Your task to perform on an android device: turn off javascript in the chrome app Image 0: 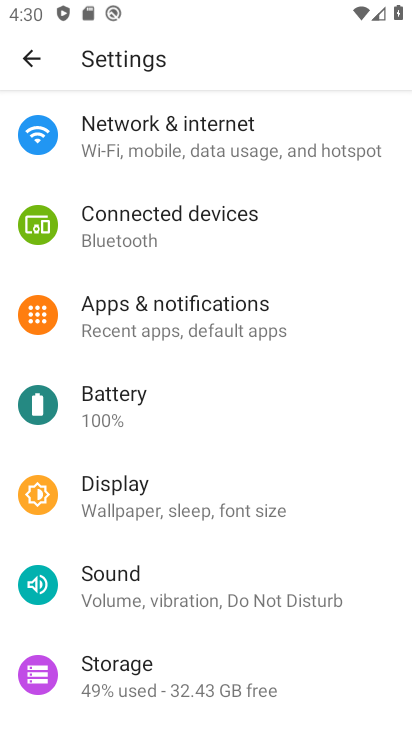
Step 0: press back button
Your task to perform on an android device: turn off javascript in the chrome app Image 1: 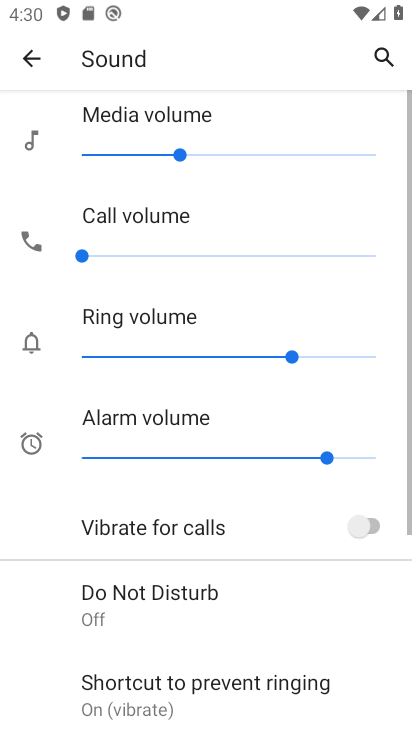
Step 1: press back button
Your task to perform on an android device: turn off javascript in the chrome app Image 2: 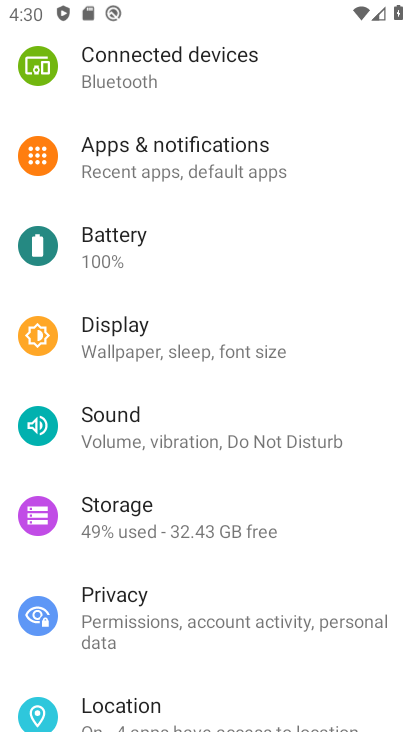
Step 2: press back button
Your task to perform on an android device: turn off javascript in the chrome app Image 3: 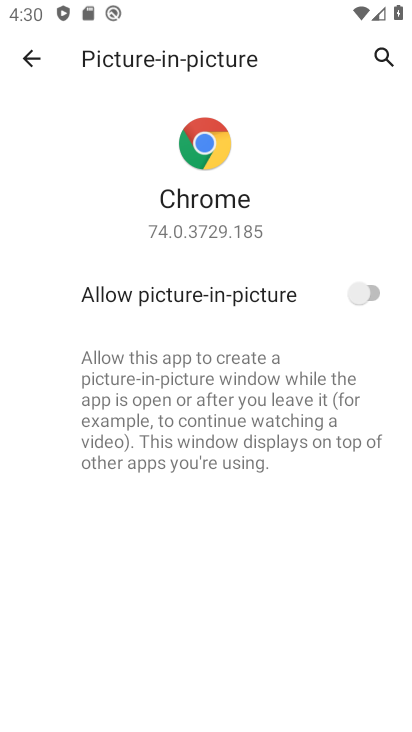
Step 3: press back button
Your task to perform on an android device: turn off javascript in the chrome app Image 4: 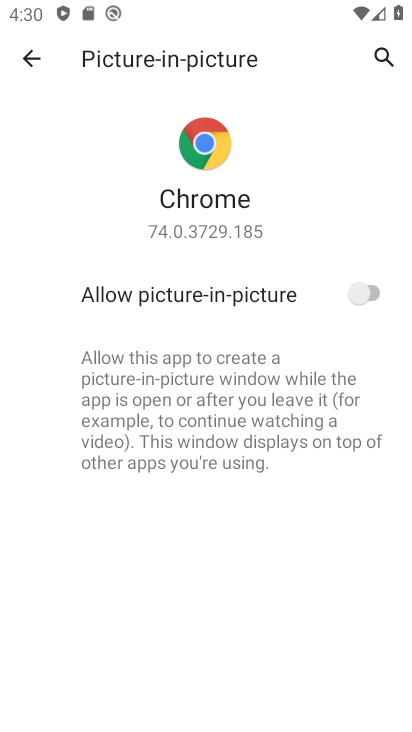
Step 4: press back button
Your task to perform on an android device: turn off javascript in the chrome app Image 5: 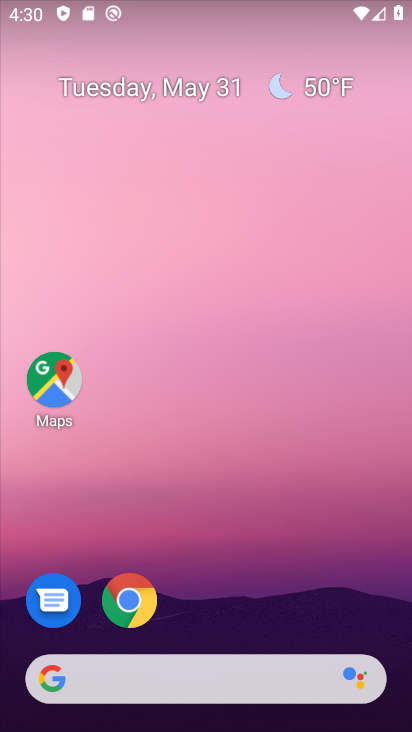
Step 5: click (137, 599)
Your task to perform on an android device: turn off javascript in the chrome app Image 6: 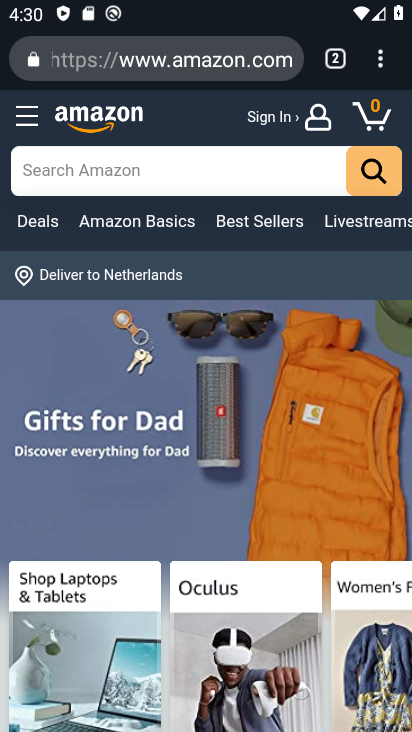
Step 6: click (385, 56)
Your task to perform on an android device: turn off javascript in the chrome app Image 7: 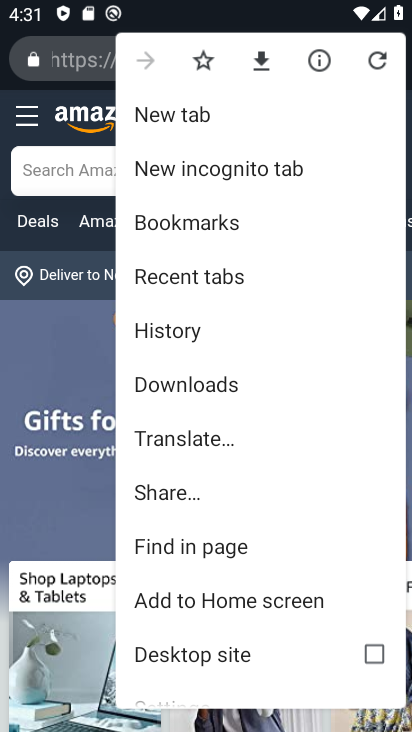
Step 7: drag from (210, 465) to (249, 373)
Your task to perform on an android device: turn off javascript in the chrome app Image 8: 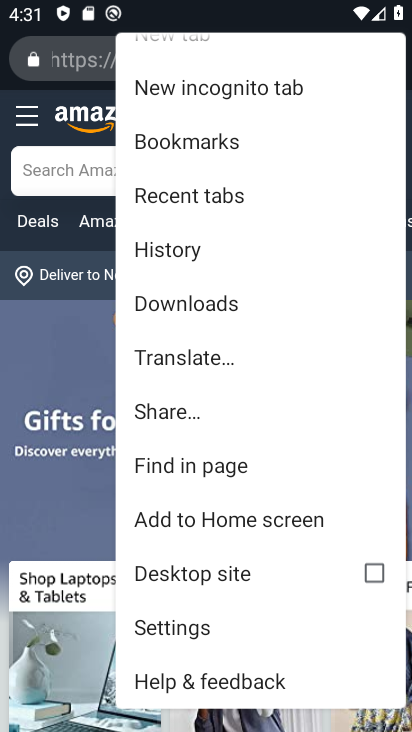
Step 8: click (180, 626)
Your task to perform on an android device: turn off javascript in the chrome app Image 9: 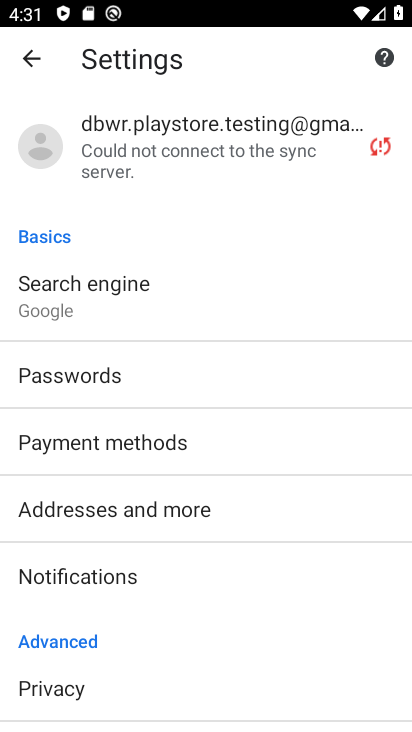
Step 9: drag from (96, 557) to (149, 388)
Your task to perform on an android device: turn off javascript in the chrome app Image 10: 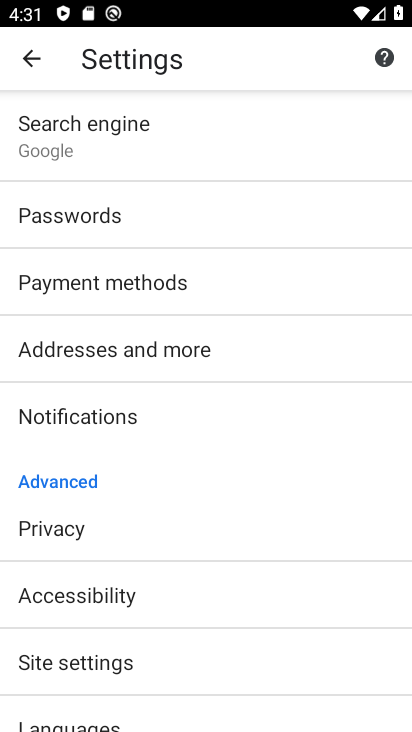
Step 10: drag from (131, 556) to (146, 434)
Your task to perform on an android device: turn off javascript in the chrome app Image 11: 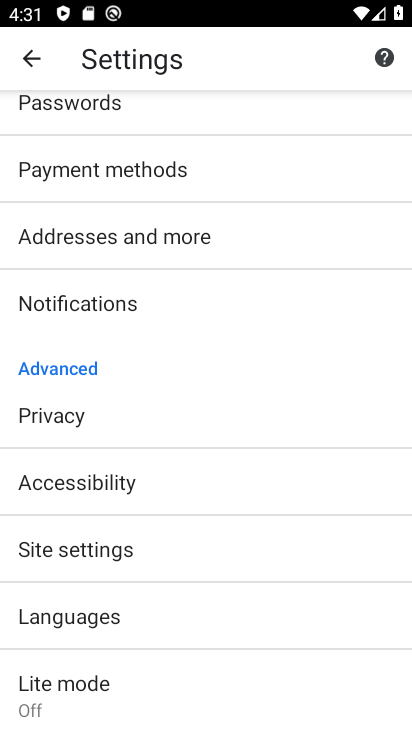
Step 11: click (105, 539)
Your task to perform on an android device: turn off javascript in the chrome app Image 12: 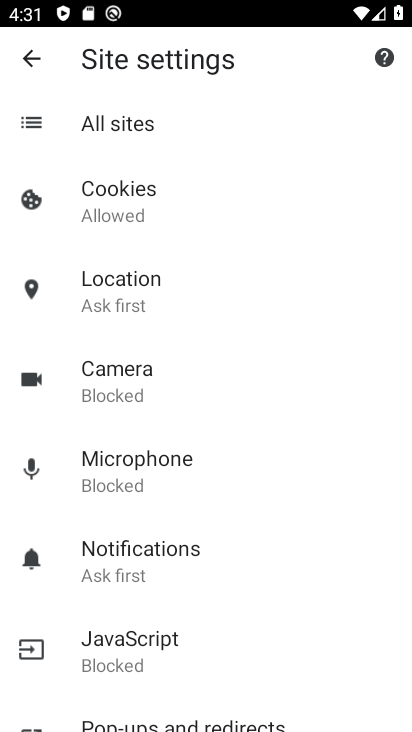
Step 12: click (153, 621)
Your task to perform on an android device: turn off javascript in the chrome app Image 13: 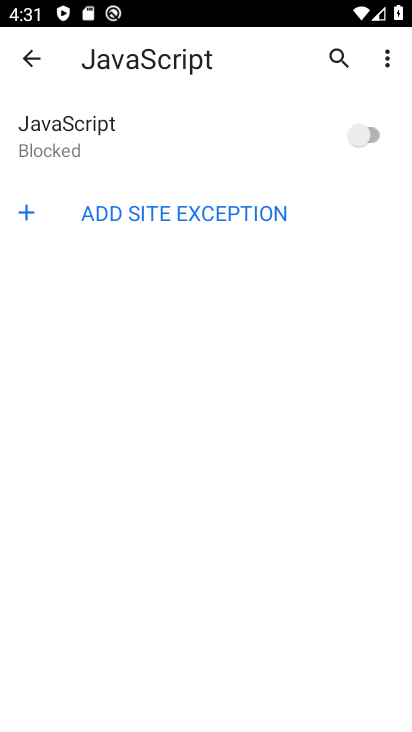
Step 13: task complete